Your task to perform on an android device: Go to accessibility settings Image 0: 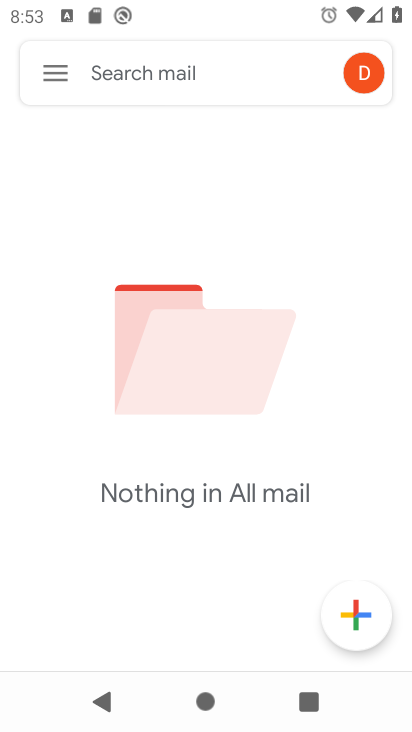
Step 0: press home button
Your task to perform on an android device: Go to accessibility settings Image 1: 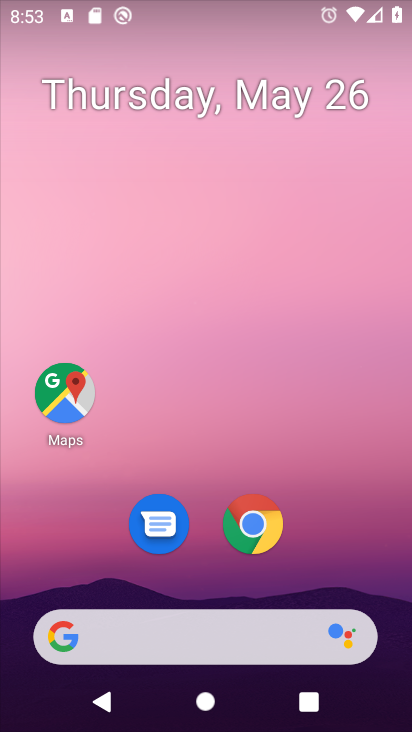
Step 1: drag from (315, 534) to (288, 54)
Your task to perform on an android device: Go to accessibility settings Image 2: 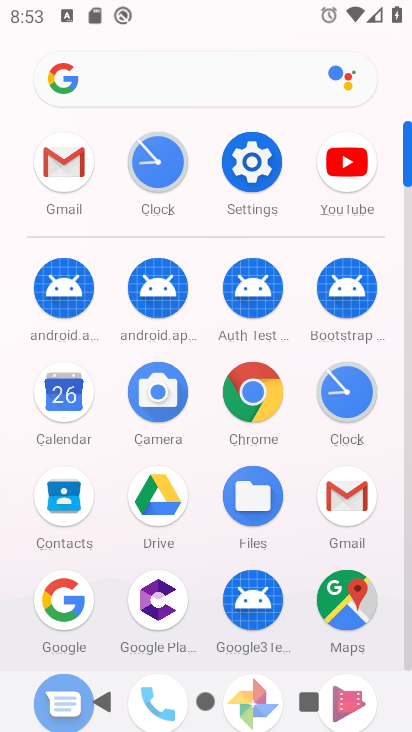
Step 2: click (255, 153)
Your task to perform on an android device: Go to accessibility settings Image 3: 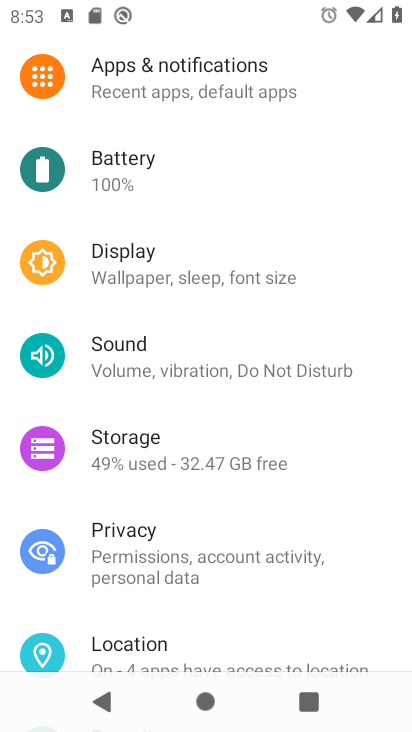
Step 3: drag from (247, 596) to (270, 83)
Your task to perform on an android device: Go to accessibility settings Image 4: 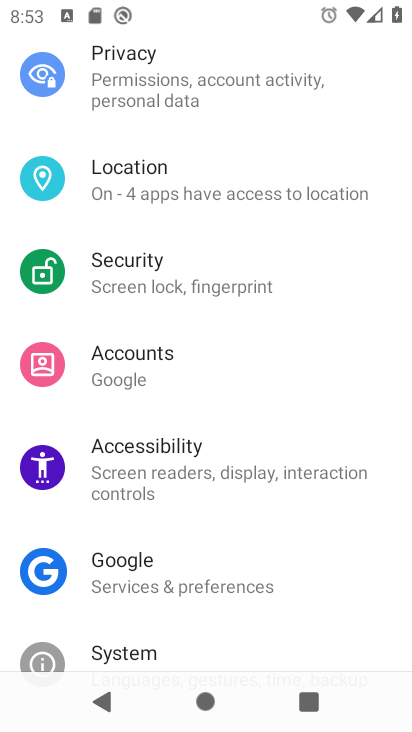
Step 4: click (224, 454)
Your task to perform on an android device: Go to accessibility settings Image 5: 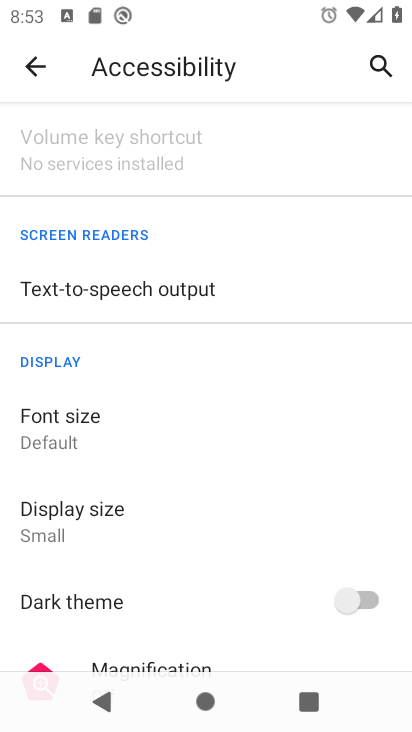
Step 5: task complete